Your task to perform on an android device: Go to Wikipedia Image 0: 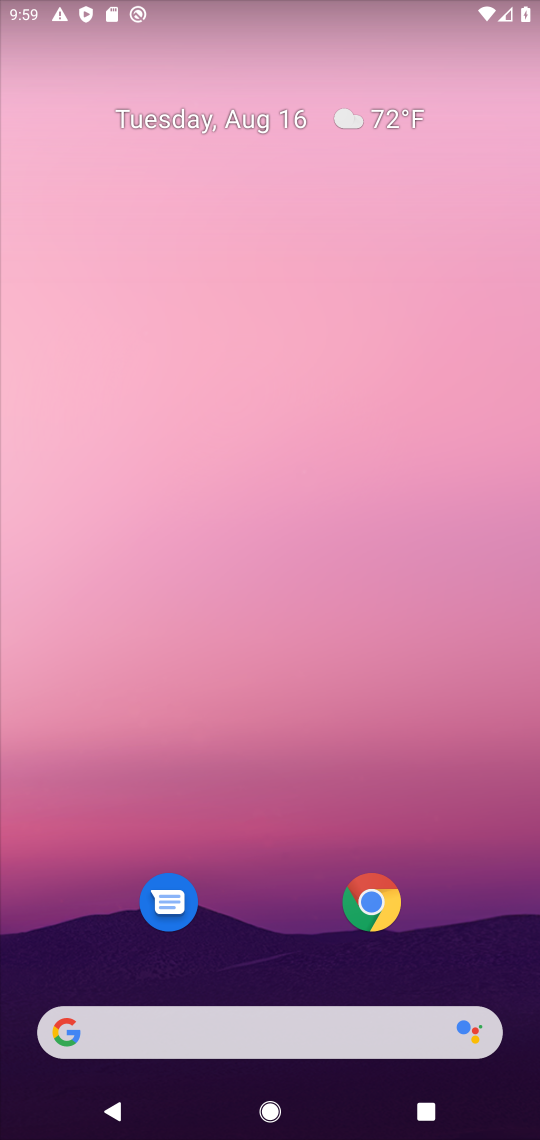
Step 0: drag from (187, 1020) to (263, 196)
Your task to perform on an android device: Go to Wikipedia Image 1: 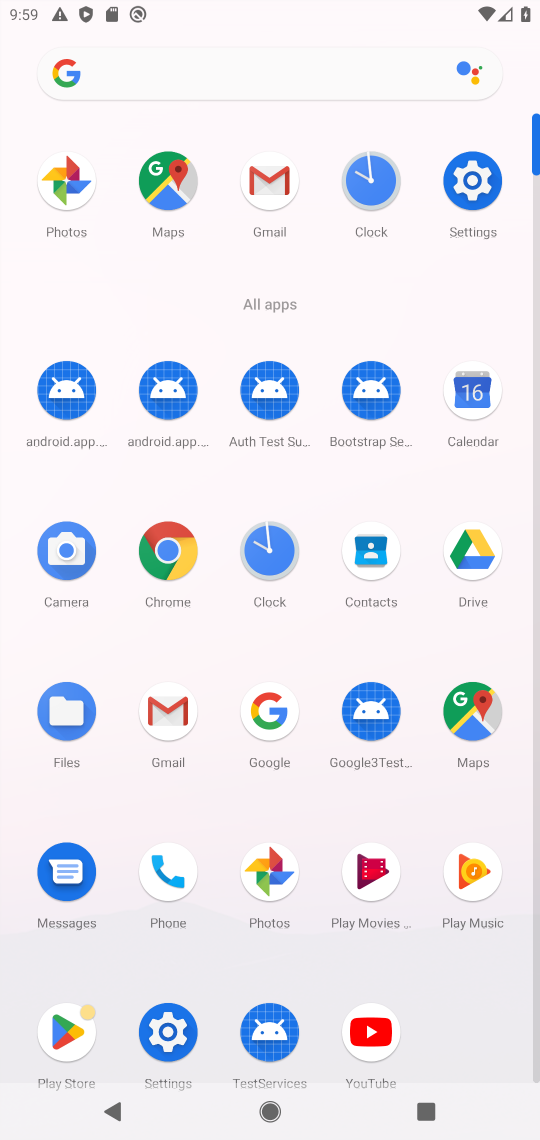
Step 1: click (162, 565)
Your task to perform on an android device: Go to Wikipedia Image 2: 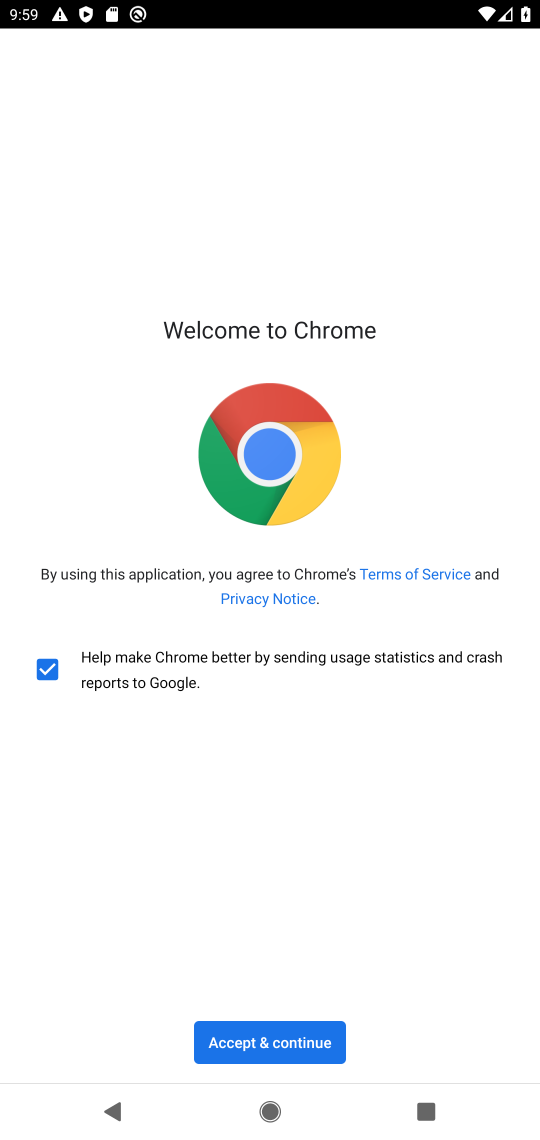
Step 2: click (295, 1042)
Your task to perform on an android device: Go to Wikipedia Image 3: 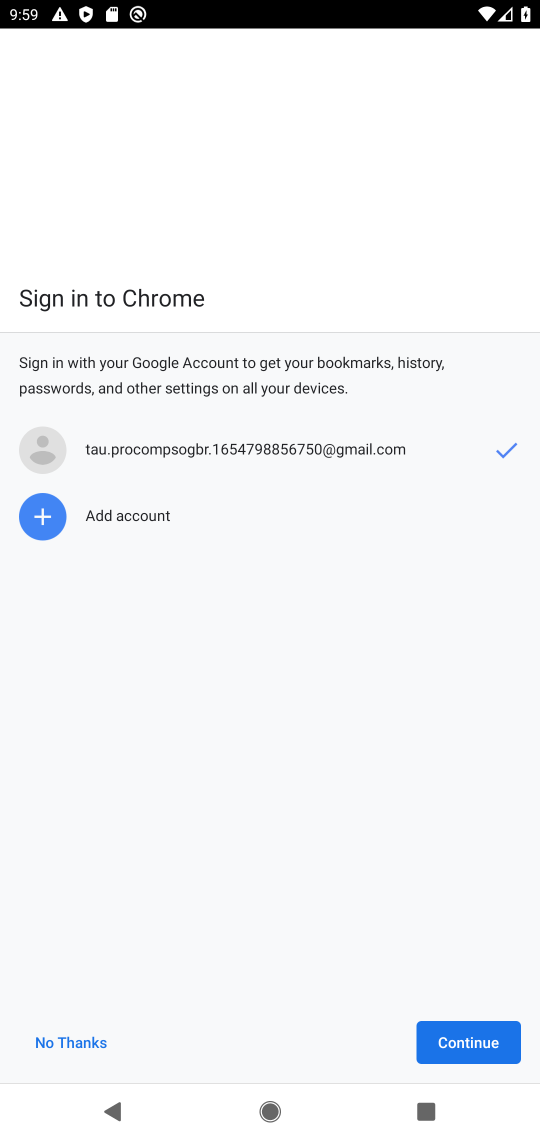
Step 3: click (469, 1038)
Your task to perform on an android device: Go to Wikipedia Image 4: 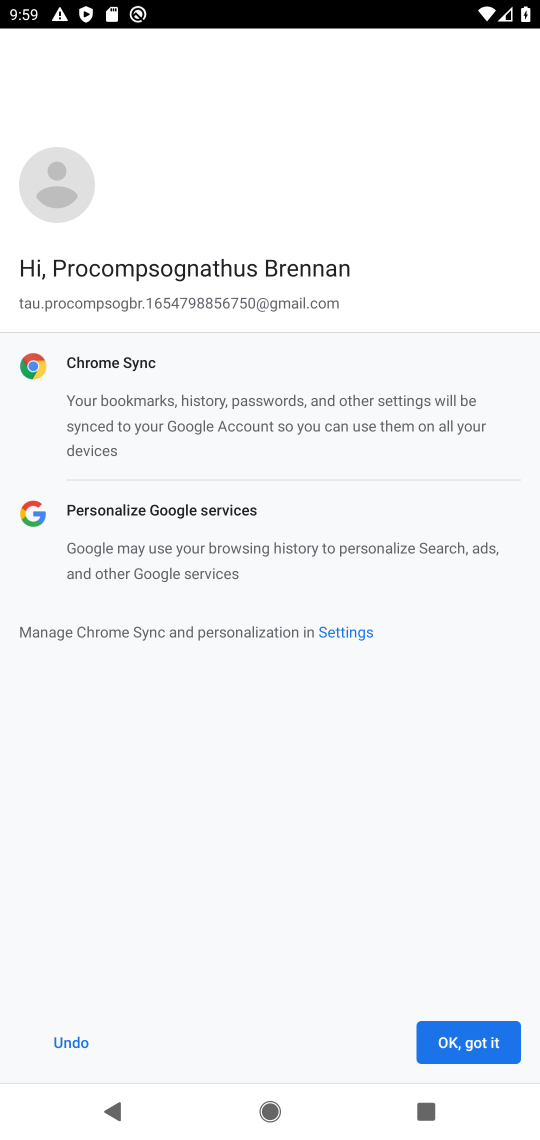
Step 4: click (469, 1048)
Your task to perform on an android device: Go to Wikipedia Image 5: 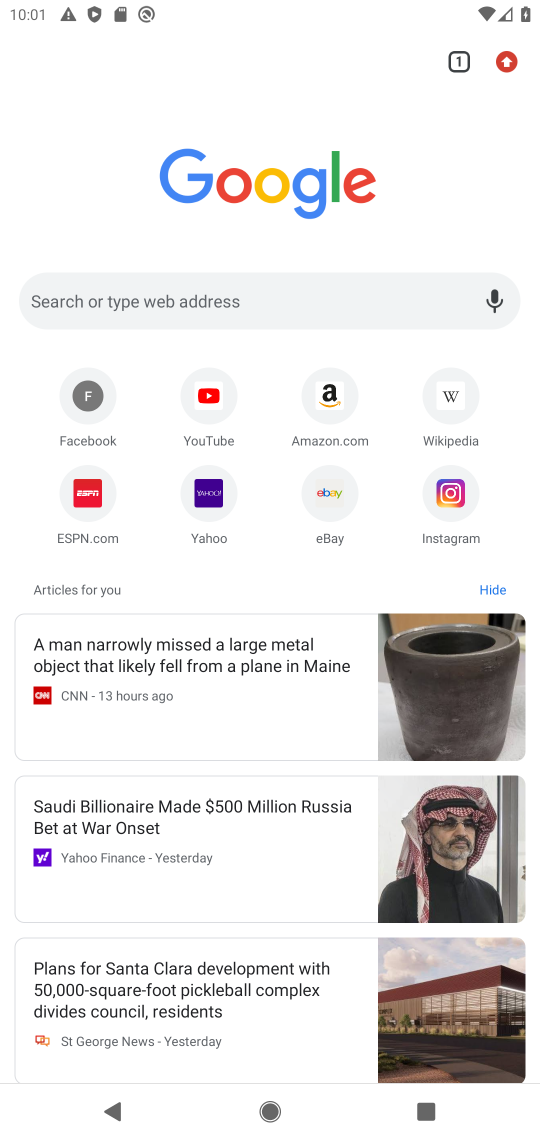
Step 5: click (459, 389)
Your task to perform on an android device: Go to Wikipedia Image 6: 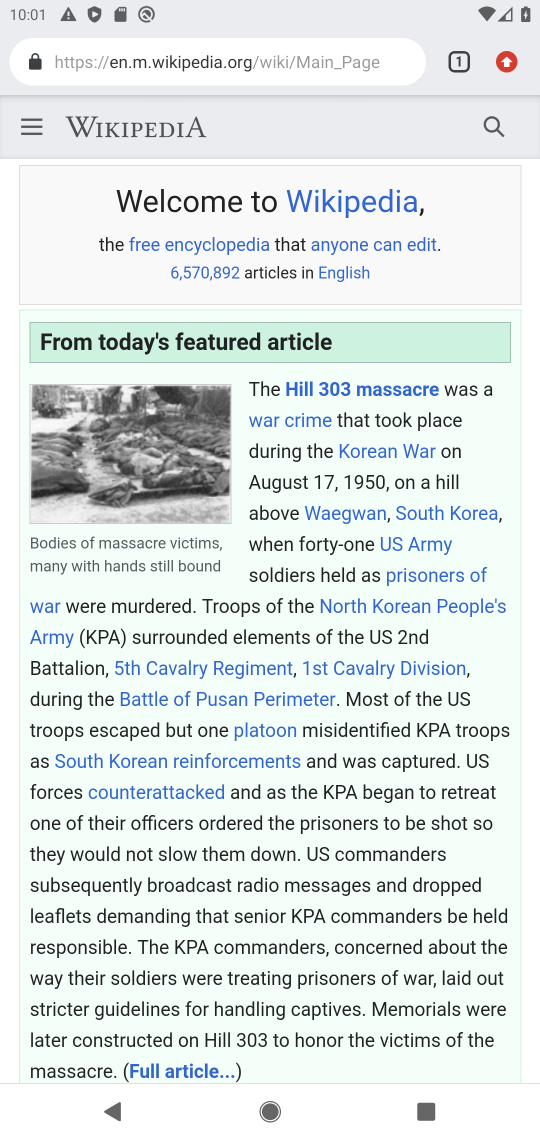
Step 6: task complete